Your task to perform on an android device: Go to calendar. Show me events next week Image 0: 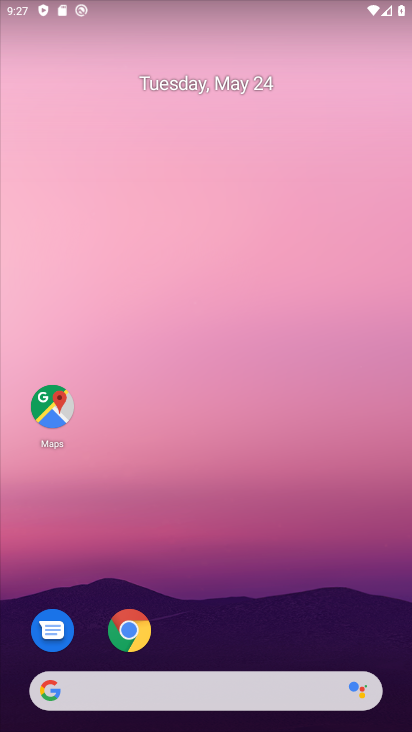
Step 0: drag from (241, 642) to (245, 101)
Your task to perform on an android device: Go to calendar. Show me events next week Image 1: 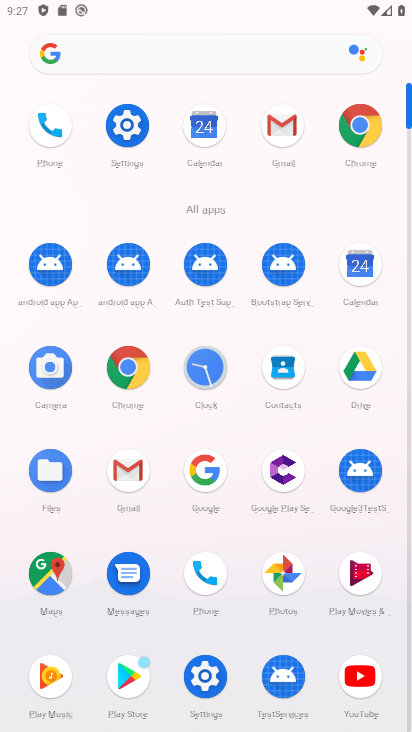
Step 1: click (204, 122)
Your task to perform on an android device: Go to calendar. Show me events next week Image 2: 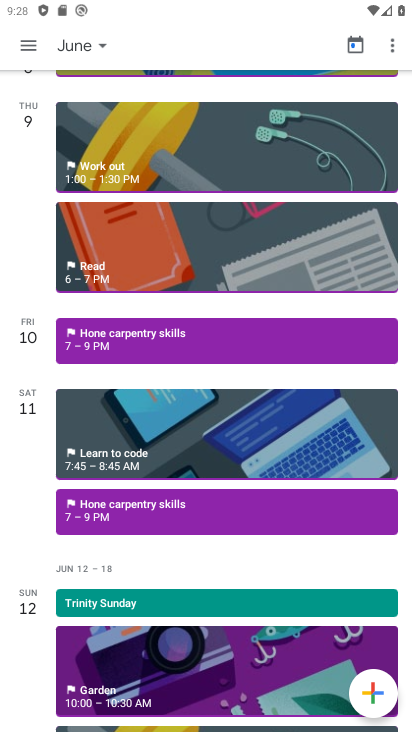
Step 2: click (106, 42)
Your task to perform on an android device: Go to calendar. Show me events next week Image 3: 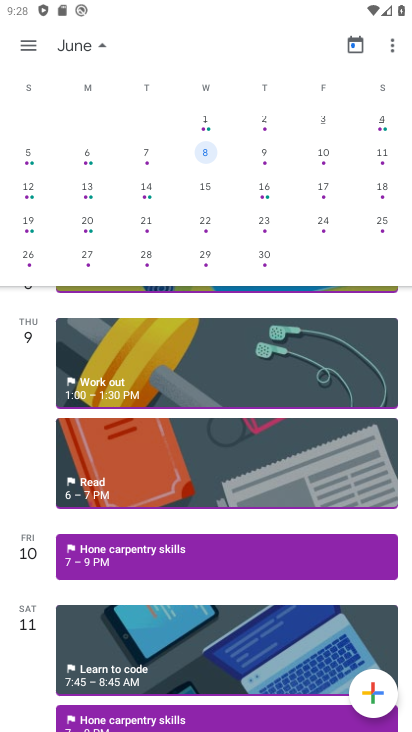
Step 3: drag from (348, 212) to (11, 207)
Your task to perform on an android device: Go to calendar. Show me events next week Image 4: 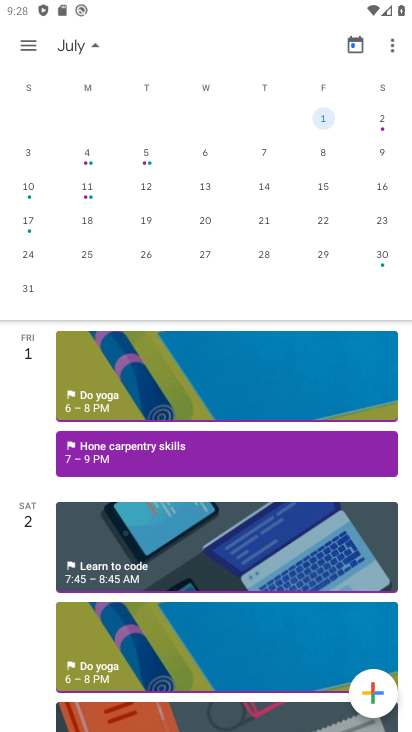
Step 4: drag from (63, 180) to (368, 252)
Your task to perform on an android device: Go to calendar. Show me events next week Image 5: 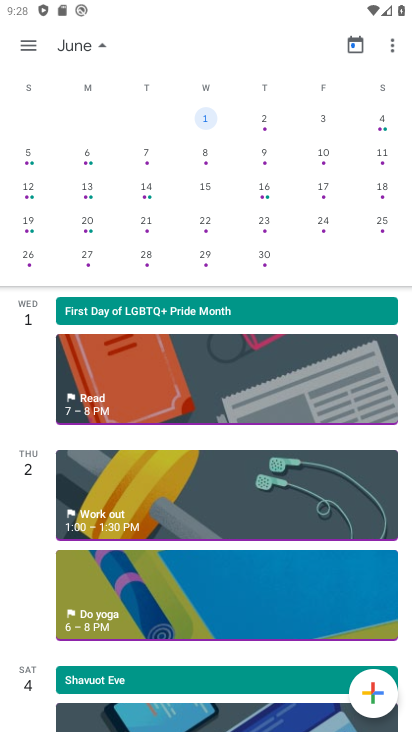
Step 5: drag from (44, 170) to (382, 205)
Your task to perform on an android device: Go to calendar. Show me events next week Image 6: 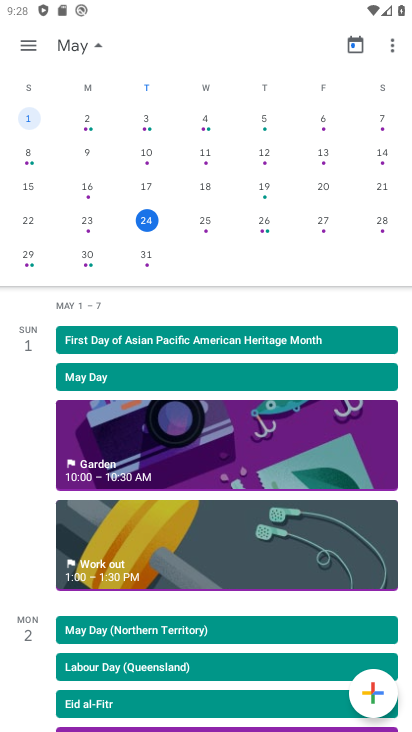
Step 6: click (22, 260)
Your task to perform on an android device: Go to calendar. Show me events next week Image 7: 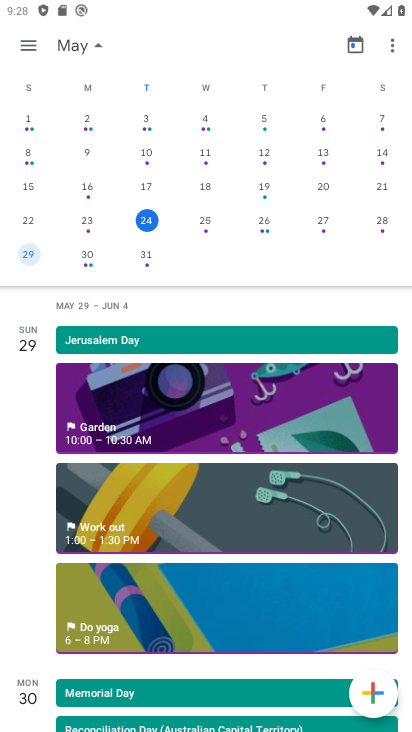
Step 7: click (96, 48)
Your task to perform on an android device: Go to calendar. Show me events next week Image 8: 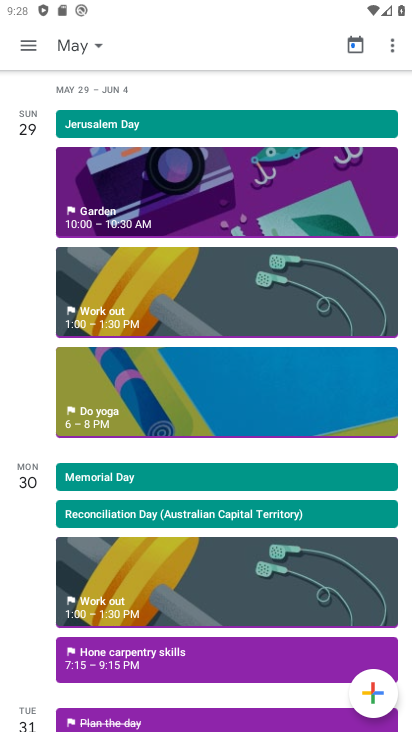
Step 8: task complete